Your task to perform on an android device: turn notification dots off Image 0: 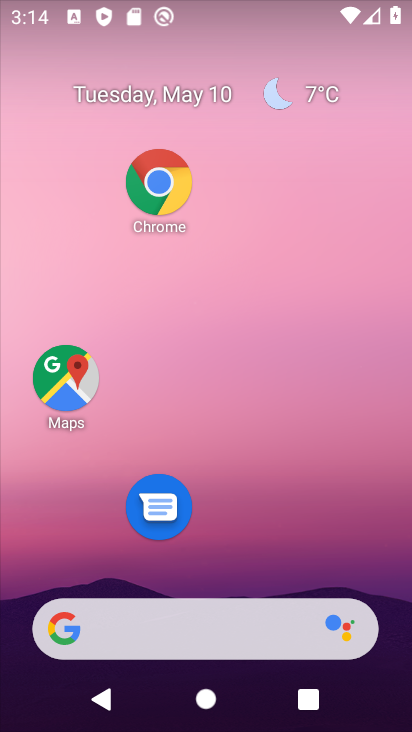
Step 0: drag from (271, 566) to (241, 358)
Your task to perform on an android device: turn notification dots off Image 1: 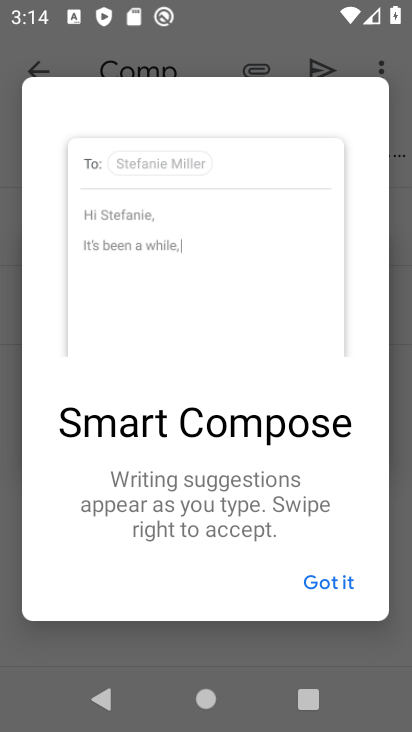
Step 1: press home button
Your task to perform on an android device: turn notification dots off Image 2: 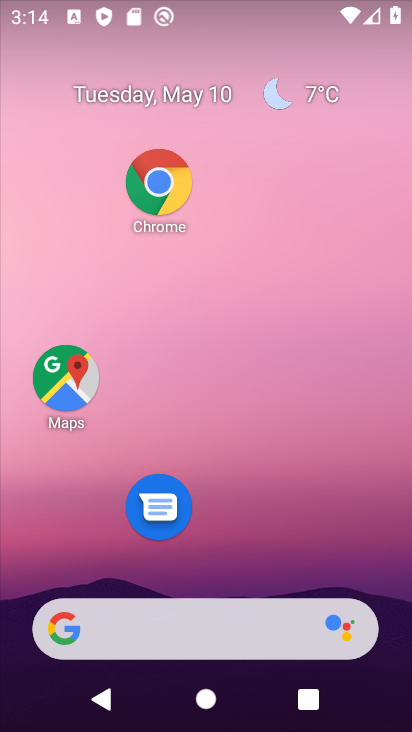
Step 2: drag from (238, 538) to (233, 308)
Your task to perform on an android device: turn notification dots off Image 3: 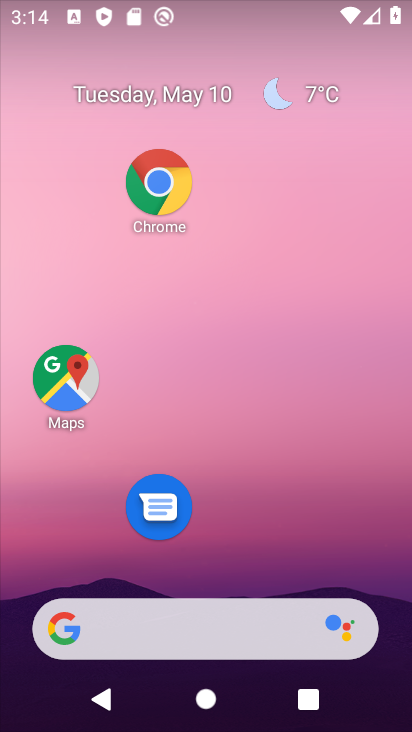
Step 3: drag from (281, 553) to (218, 75)
Your task to perform on an android device: turn notification dots off Image 4: 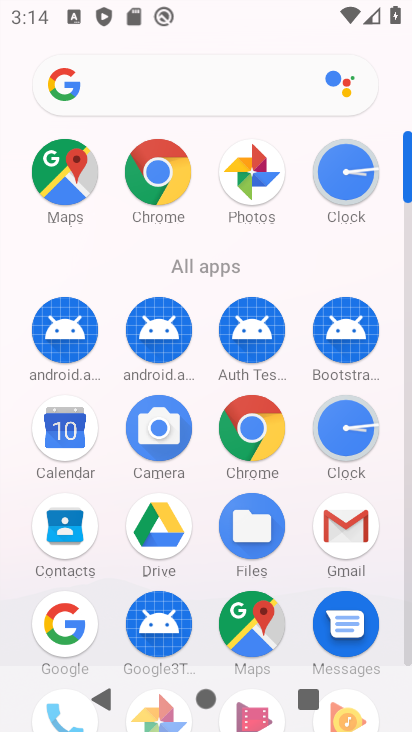
Step 4: click (405, 601)
Your task to perform on an android device: turn notification dots off Image 5: 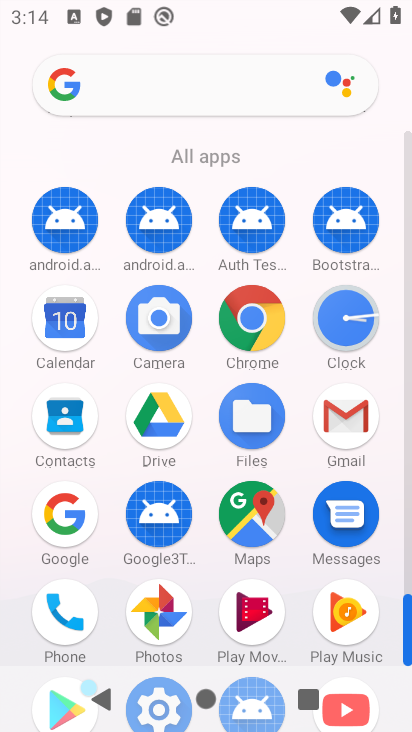
Step 5: drag from (408, 658) to (400, 712)
Your task to perform on an android device: turn notification dots off Image 6: 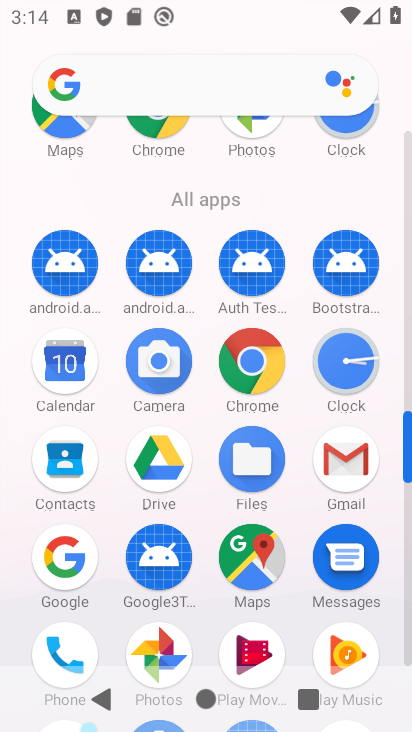
Step 6: click (411, 602)
Your task to perform on an android device: turn notification dots off Image 7: 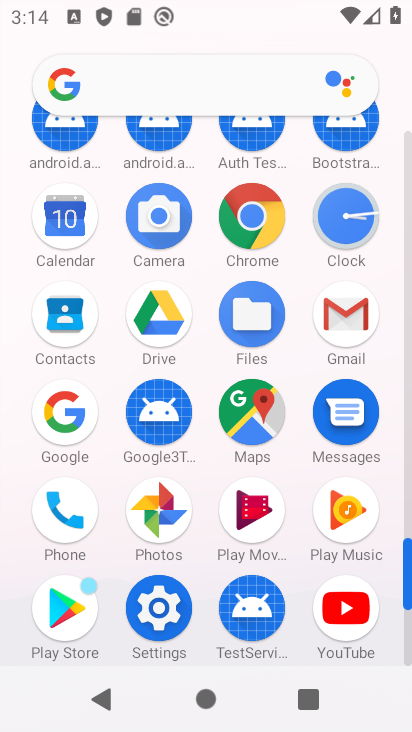
Step 7: click (171, 627)
Your task to perform on an android device: turn notification dots off Image 8: 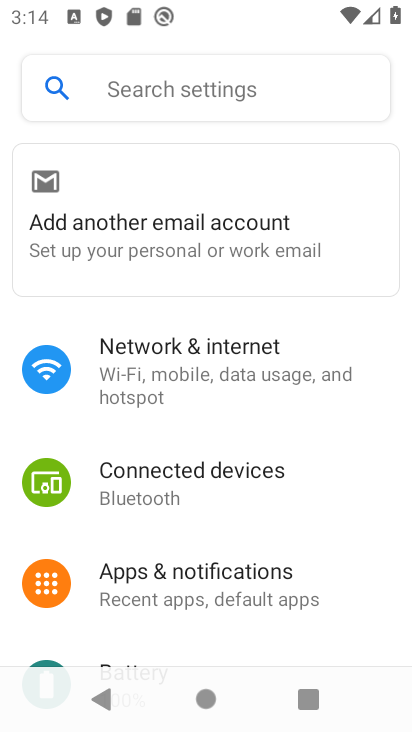
Step 8: drag from (196, 523) to (196, 429)
Your task to perform on an android device: turn notification dots off Image 9: 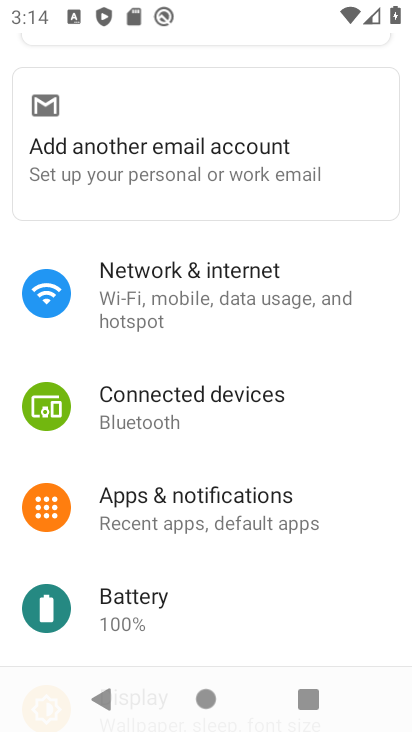
Step 9: click (242, 497)
Your task to perform on an android device: turn notification dots off Image 10: 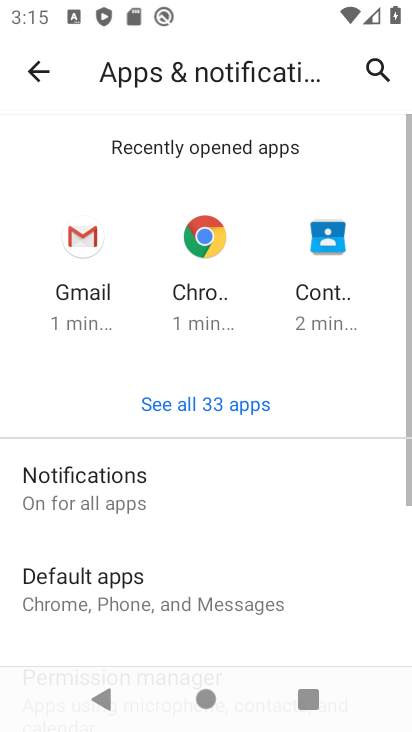
Step 10: drag from (251, 553) to (208, 367)
Your task to perform on an android device: turn notification dots off Image 11: 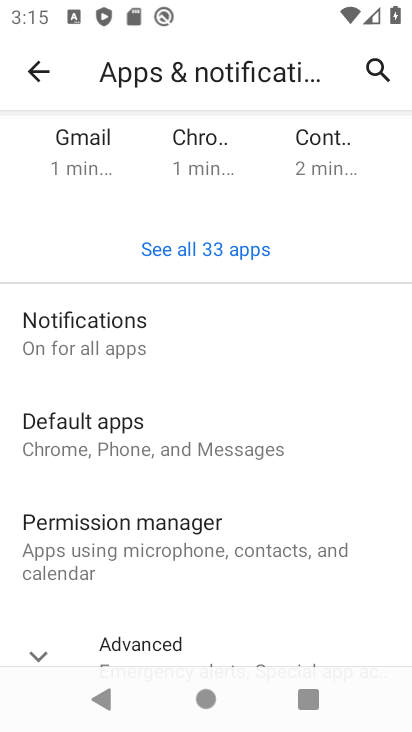
Step 11: click (201, 634)
Your task to perform on an android device: turn notification dots off Image 12: 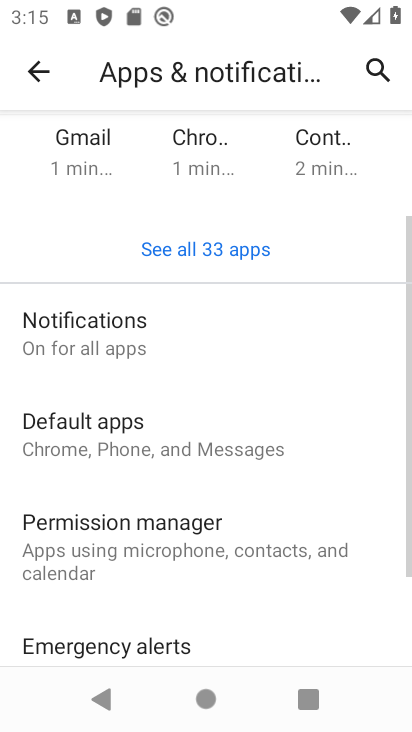
Step 12: click (140, 367)
Your task to perform on an android device: turn notification dots off Image 13: 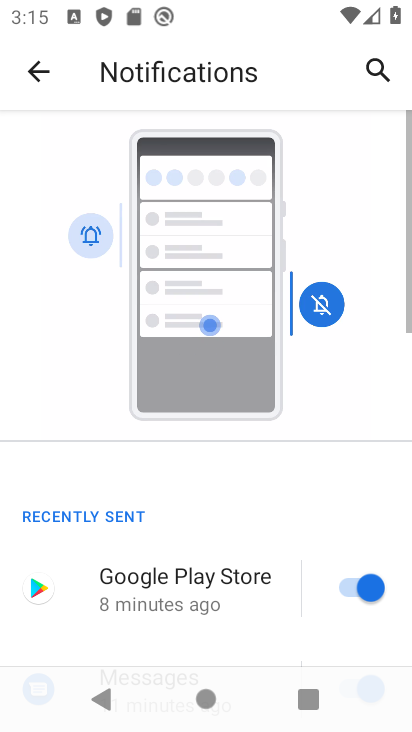
Step 13: drag from (201, 566) to (154, 194)
Your task to perform on an android device: turn notification dots off Image 14: 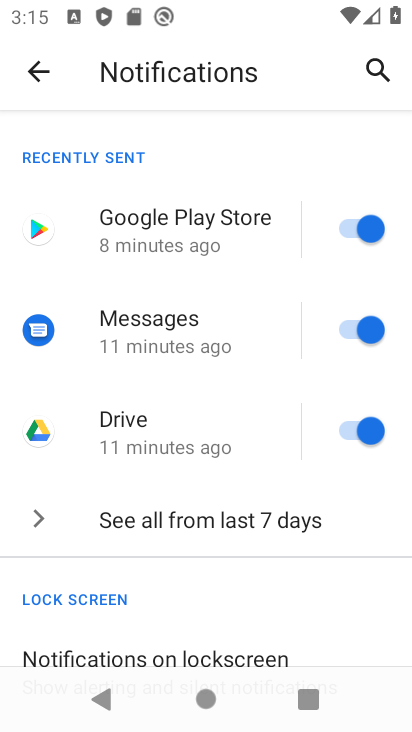
Step 14: drag from (194, 598) to (157, 227)
Your task to perform on an android device: turn notification dots off Image 15: 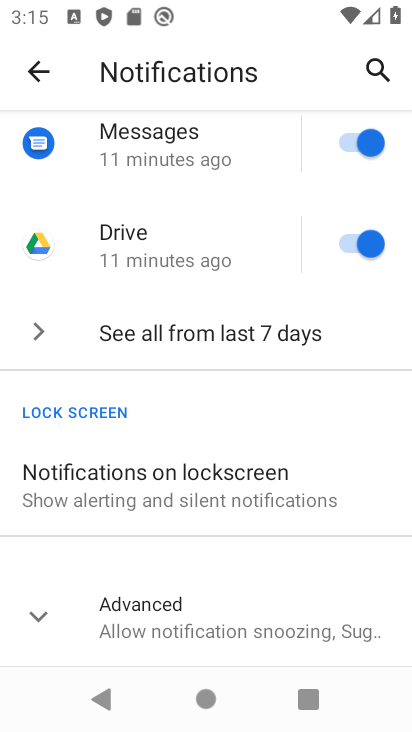
Step 15: click (138, 589)
Your task to perform on an android device: turn notification dots off Image 16: 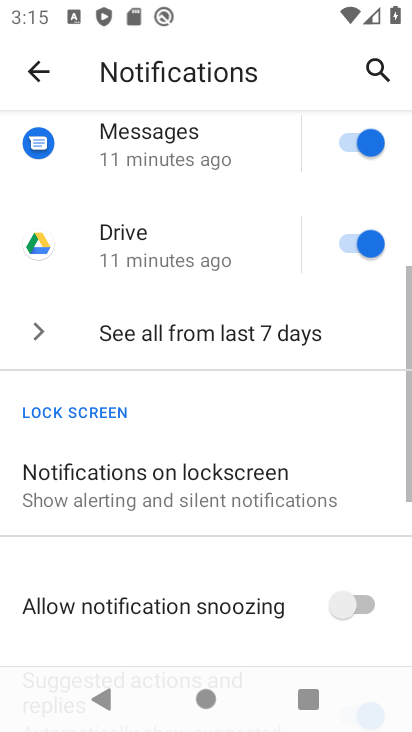
Step 16: drag from (165, 569) to (122, 246)
Your task to perform on an android device: turn notification dots off Image 17: 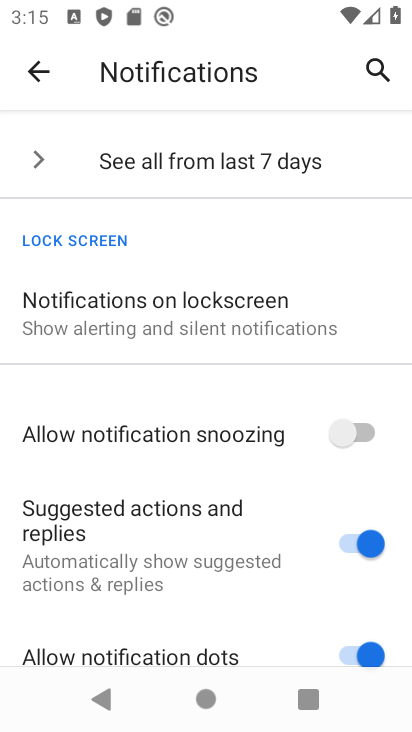
Step 17: click (347, 636)
Your task to perform on an android device: turn notification dots off Image 18: 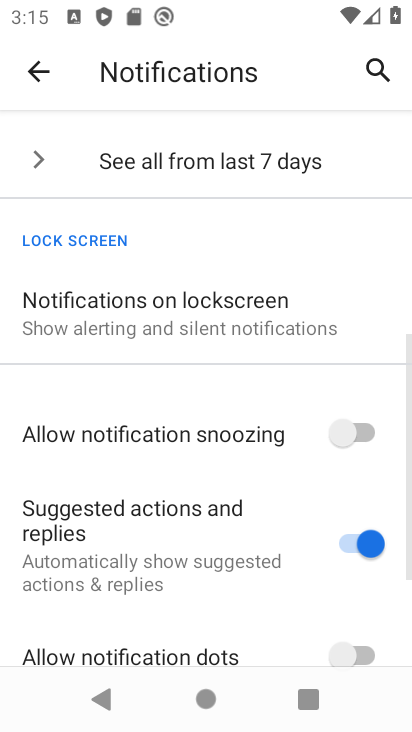
Step 18: task complete